Your task to perform on an android device: What is the news today? Image 0: 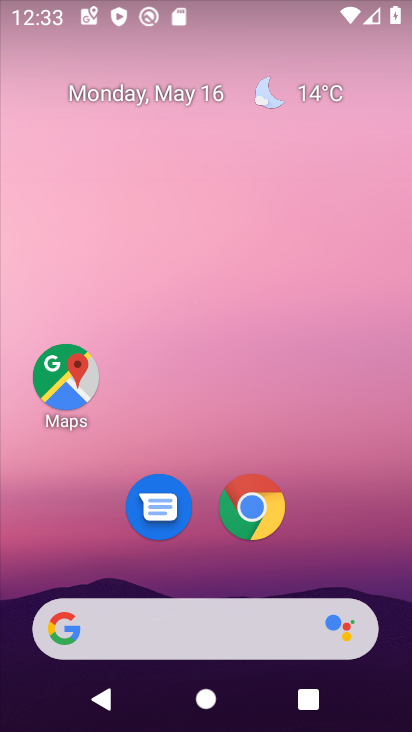
Step 0: drag from (338, 470) to (334, 167)
Your task to perform on an android device: What is the news today? Image 1: 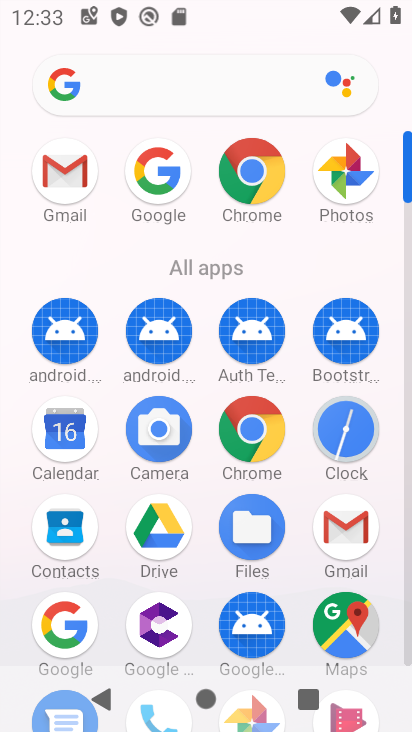
Step 1: click (82, 625)
Your task to perform on an android device: What is the news today? Image 2: 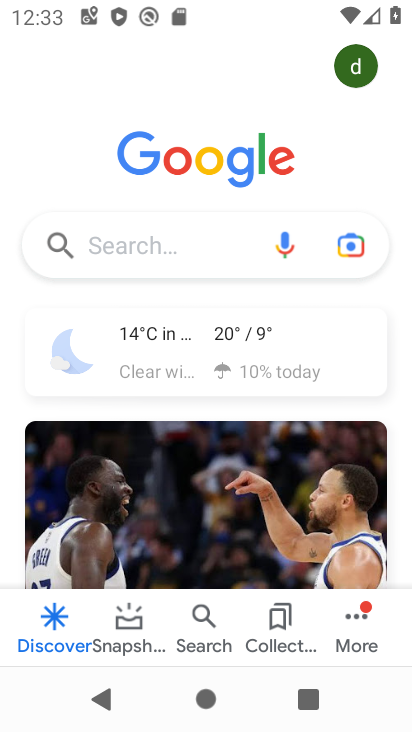
Step 2: task complete